Your task to perform on an android device: check data usage Image 0: 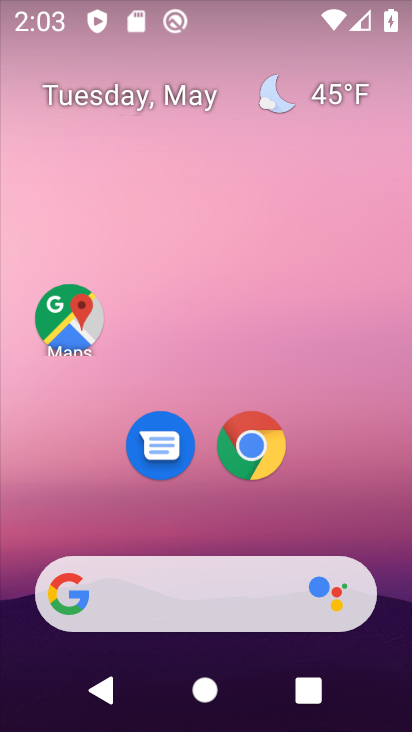
Step 0: drag from (187, 540) to (275, 76)
Your task to perform on an android device: check data usage Image 1: 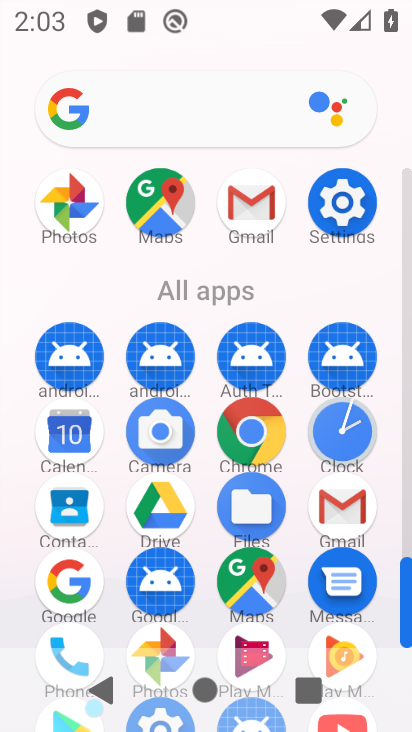
Step 1: click (343, 199)
Your task to perform on an android device: check data usage Image 2: 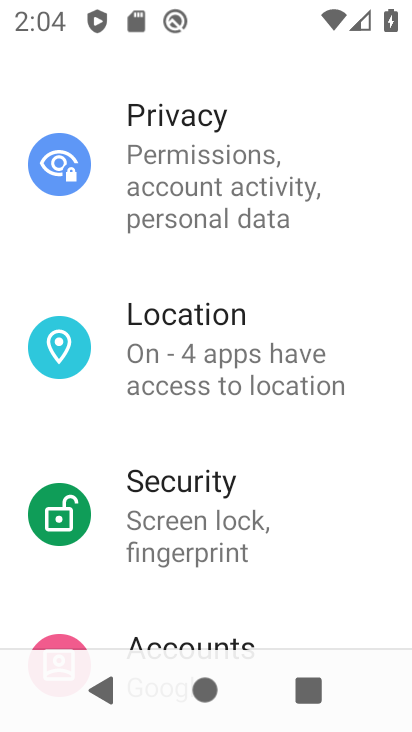
Step 2: drag from (250, 197) to (160, 724)
Your task to perform on an android device: check data usage Image 3: 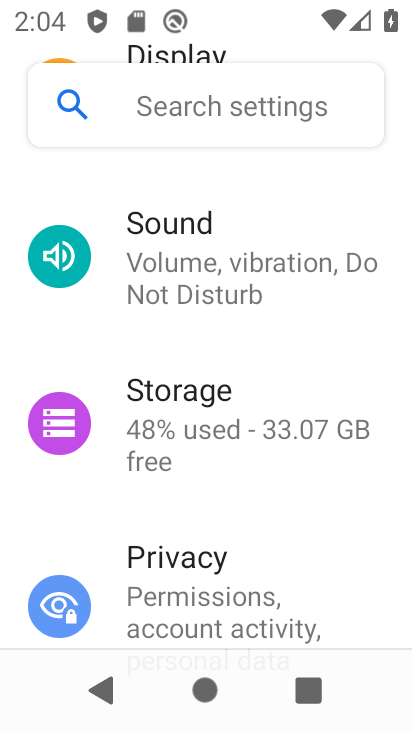
Step 3: drag from (309, 236) to (203, 665)
Your task to perform on an android device: check data usage Image 4: 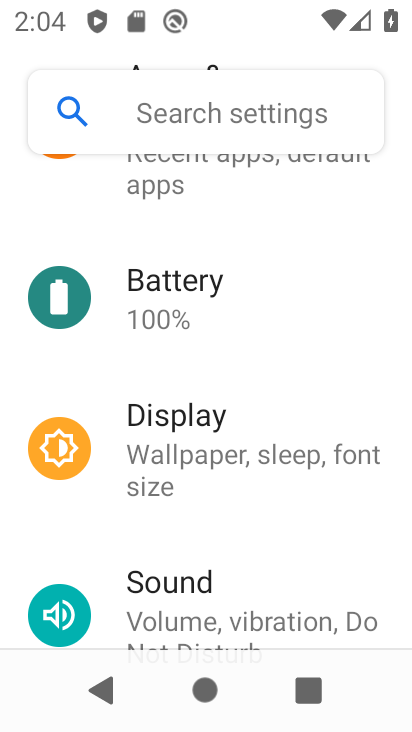
Step 4: drag from (249, 237) to (162, 716)
Your task to perform on an android device: check data usage Image 5: 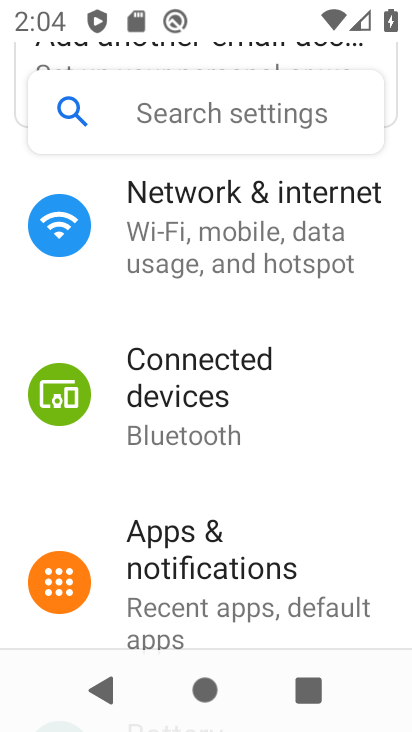
Step 5: click (223, 238)
Your task to perform on an android device: check data usage Image 6: 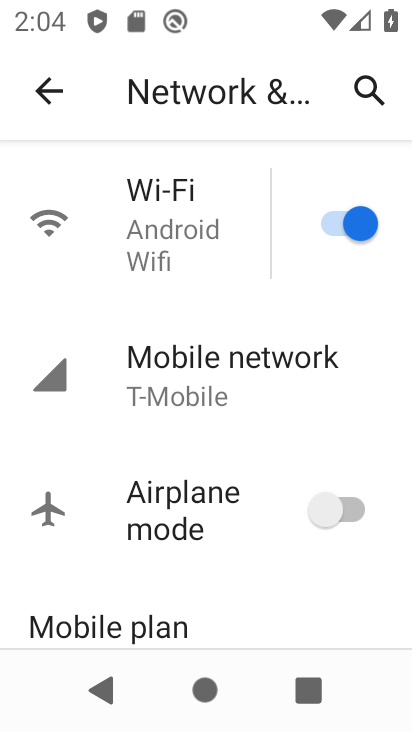
Step 6: drag from (177, 613) to (284, 170)
Your task to perform on an android device: check data usage Image 7: 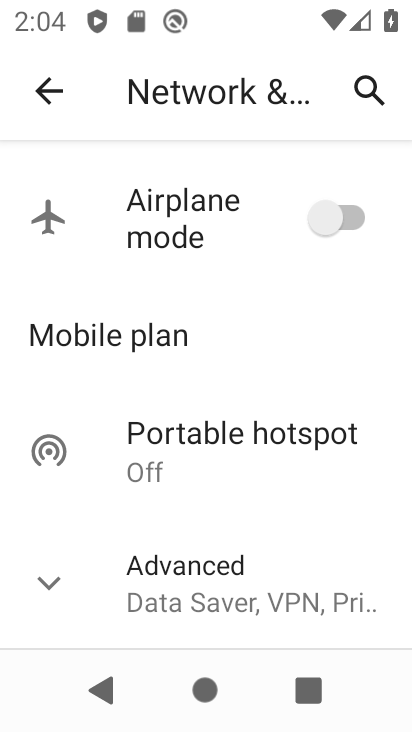
Step 7: drag from (227, 215) to (157, 722)
Your task to perform on an android device: check data usage Image 8: 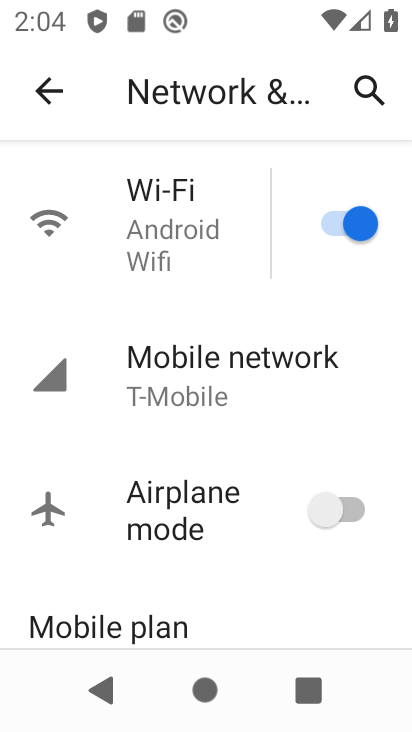
Step 8: click (213, 396)
Your task to perform on an android device: check data usage Image 9: 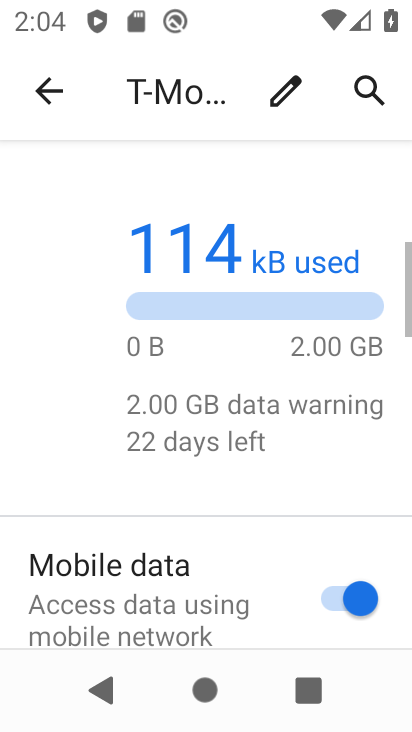
Step 9: drag from (192, 598) to (302, 41)
Your task to perform on an android device: check data usage Image 10: 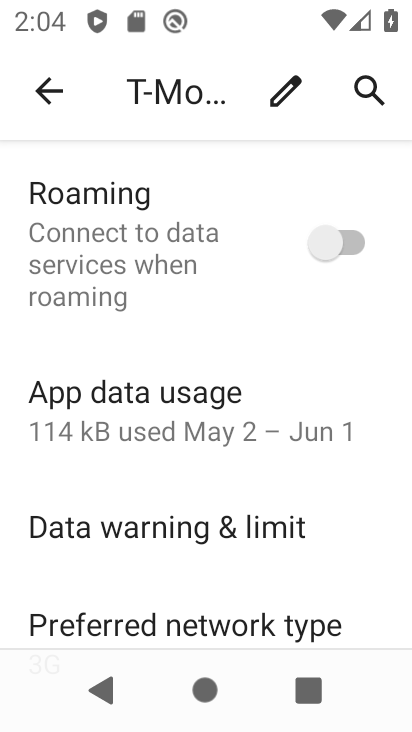
Step 10: click (153, 421)
Your task to perform on an android device: check data usage Image 11: 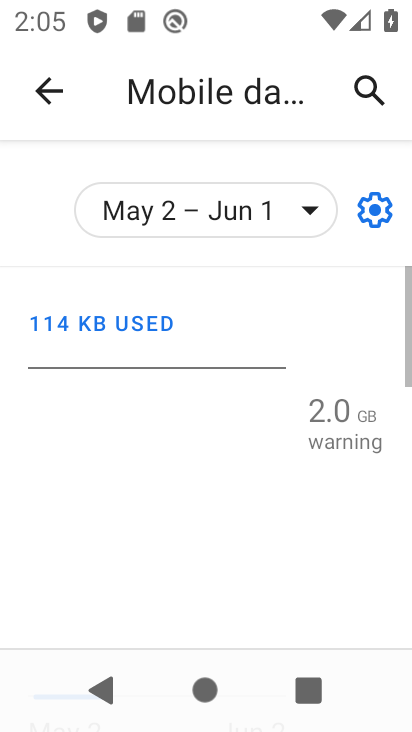
Step 11: task complete